Your task to perform on an android device: turn off data saver in the chrome app Image 0: 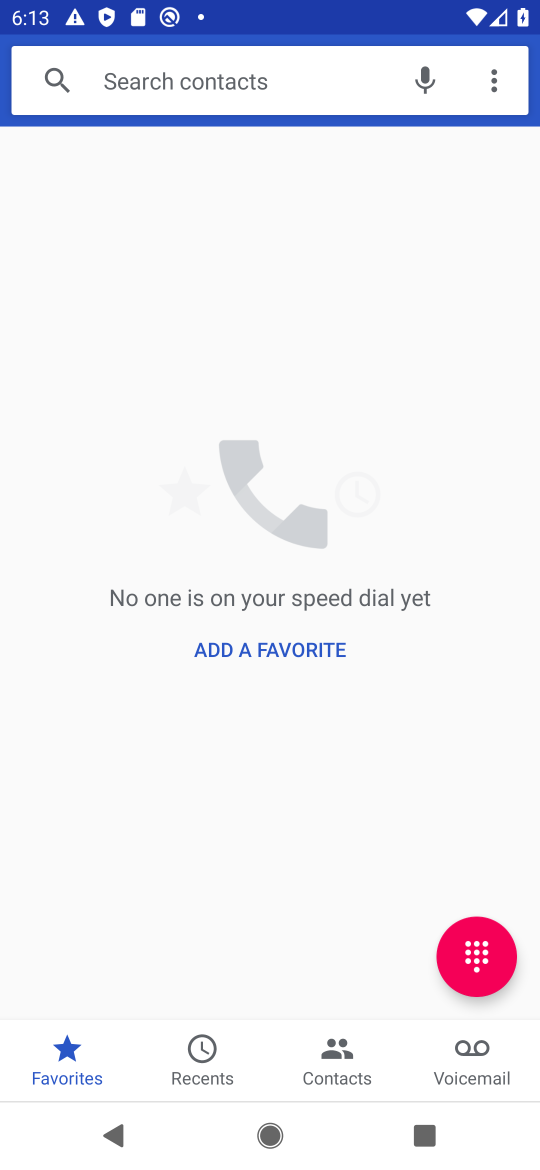
Step 0: press home button
Your task to perform on an android device: turn off data saver in the chrome app Image 1: 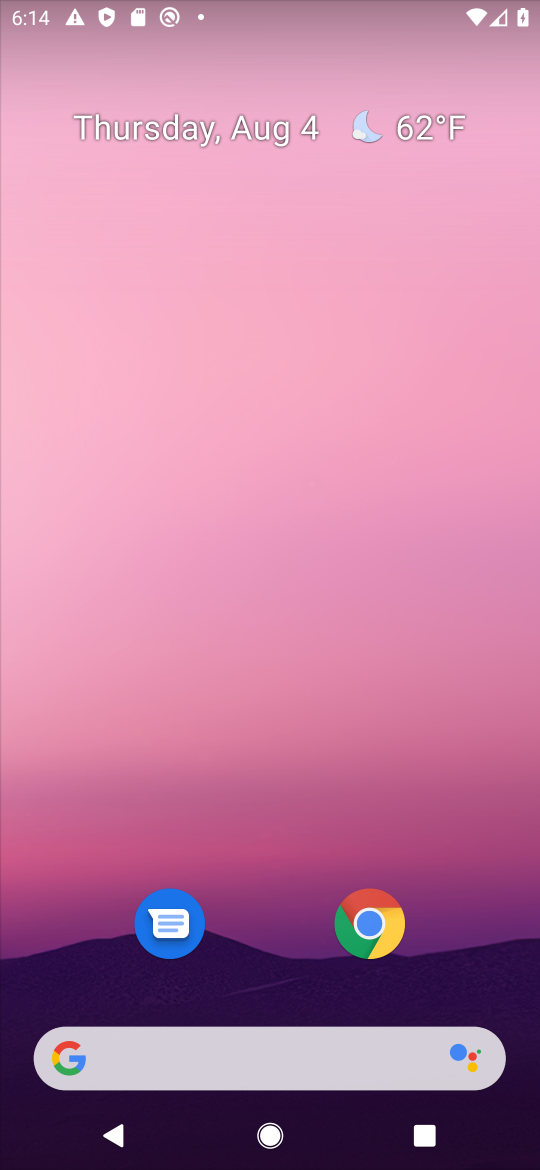
Step 1: click (378, 923)
Your task to perform on an android device: turn off data saver in the chrome app Image 2: 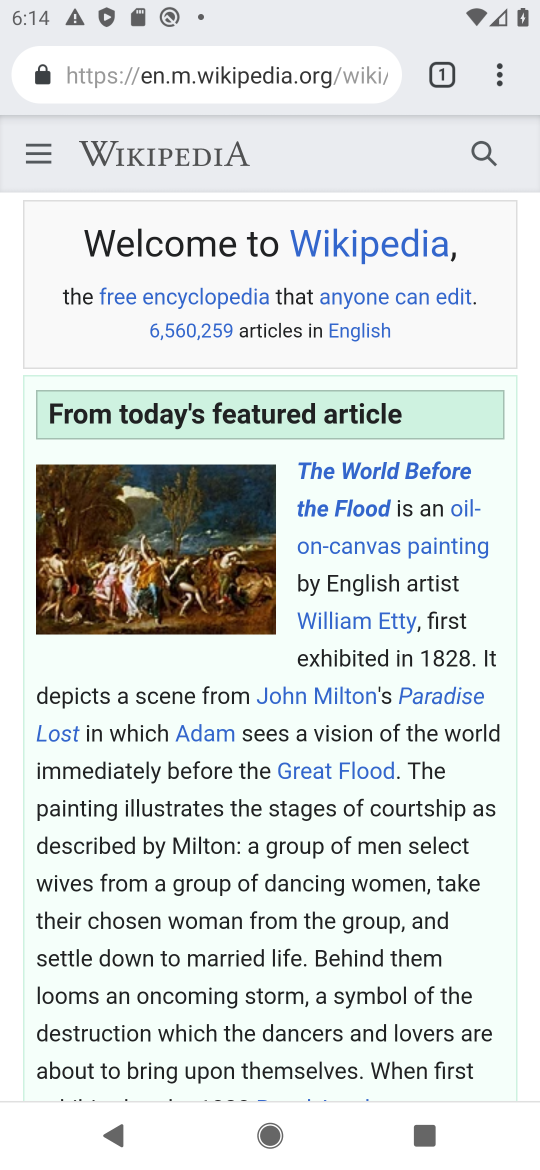
Step 2: click (498, 59)
Your task to perform on an android device: turn off data saver in the chrome app Image 3: 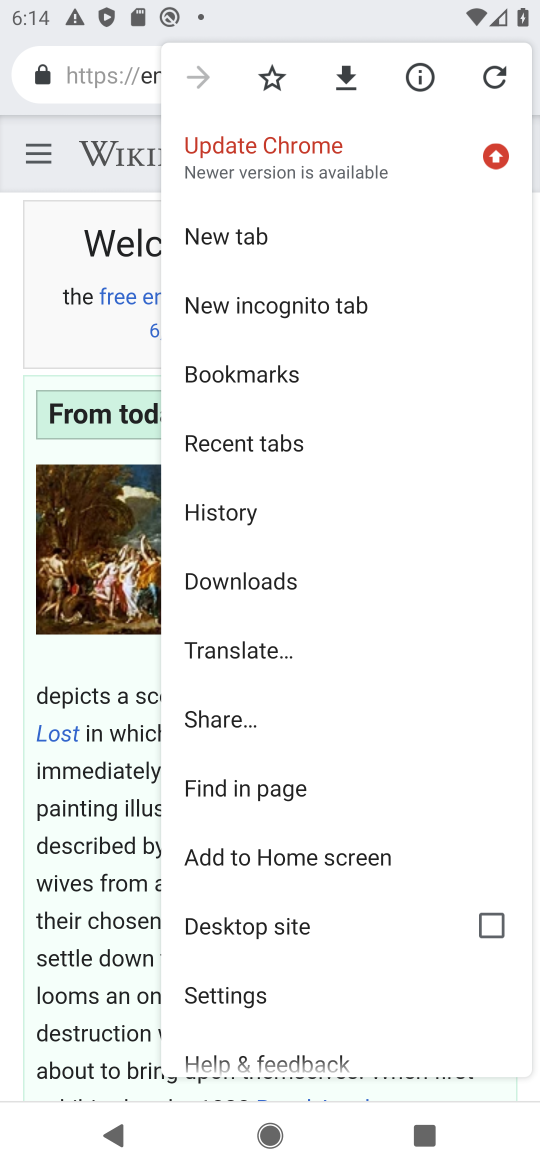
Step 3: click (291, 993)
Your task to perform on an android device: turn off data saver in the chrome app Image 4: 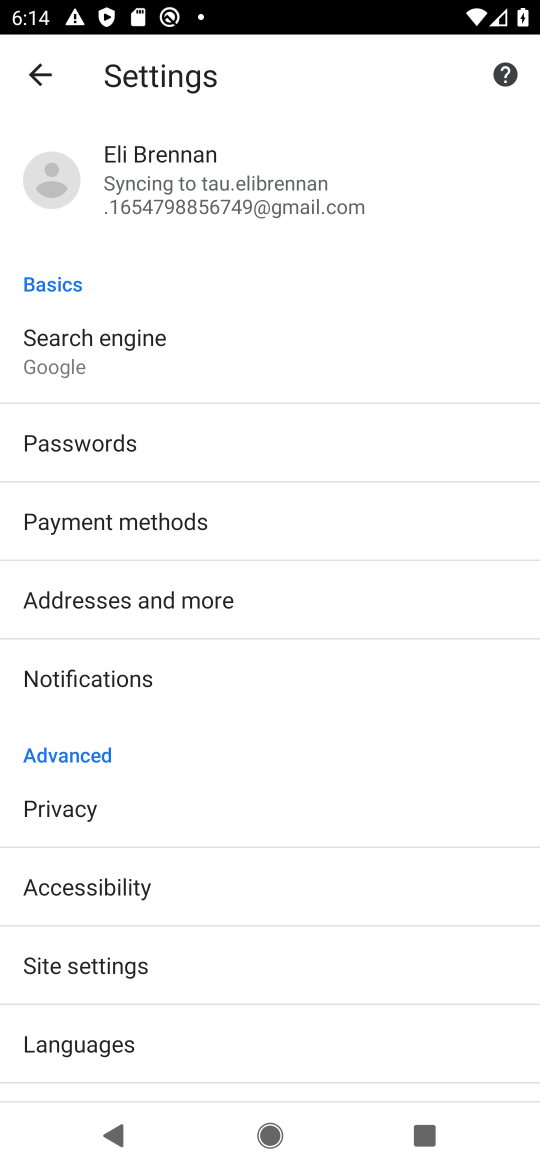
Step 4: task complete